Your task to perform on an android device: change the upload size in google photos Image 0: 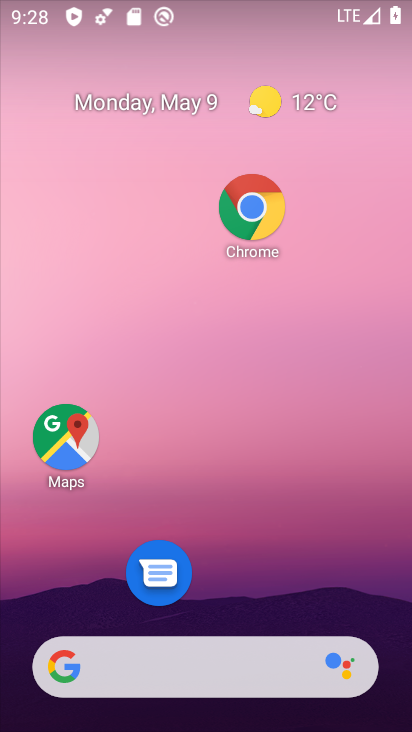
Step 0: drag from (275, 614) to (227, 345)
Your task to perform on an android device: change the upload size in google photos Image 1: 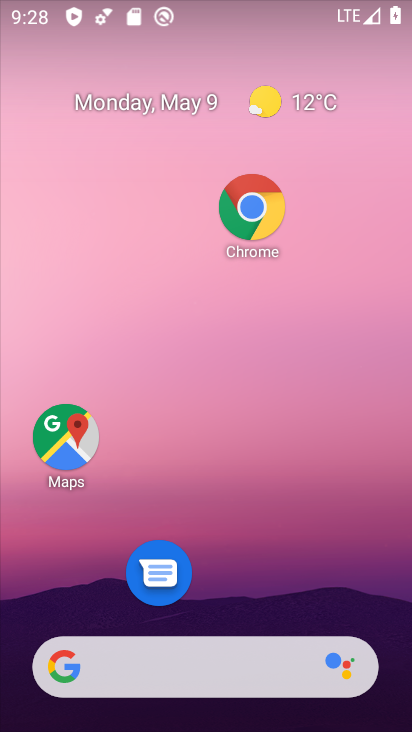
Step 1: drag from (275, 565) to (214, 270)
Your task to perform on an android device: change the upload size in google photos Image 2: 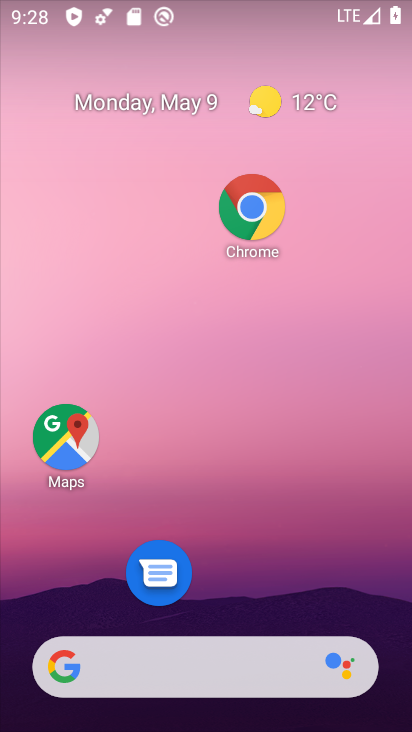
Step 2: drag from (287, 590) to (216, 285)
Your task to perform on an android device: change the upload size in google photos Image 3: 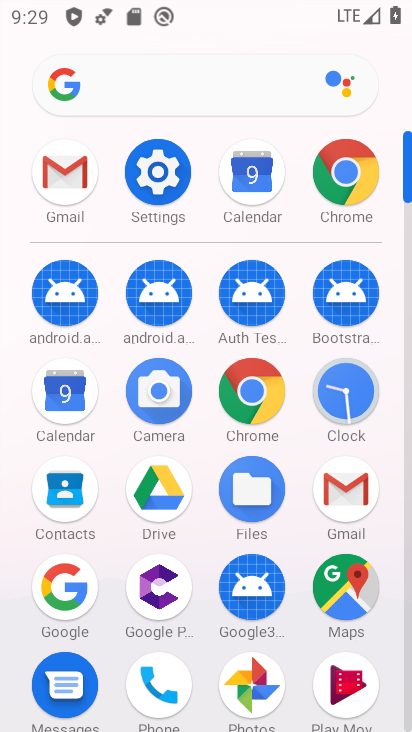
Step 3: click (243, 684)
Your task to perform on an android device: change the upload size in google photos Image 4: 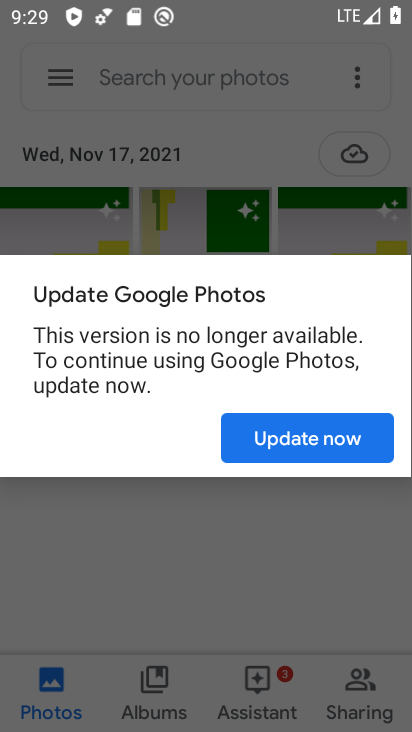
Step 4: task complete